Your task to perform on an android device: check out phone information Image 0: 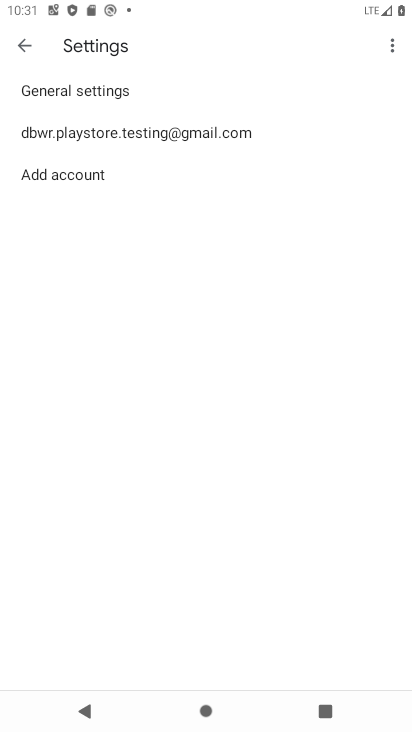
Step 0: press home button
Your task to perform on an android device: check out phone information Image 1: 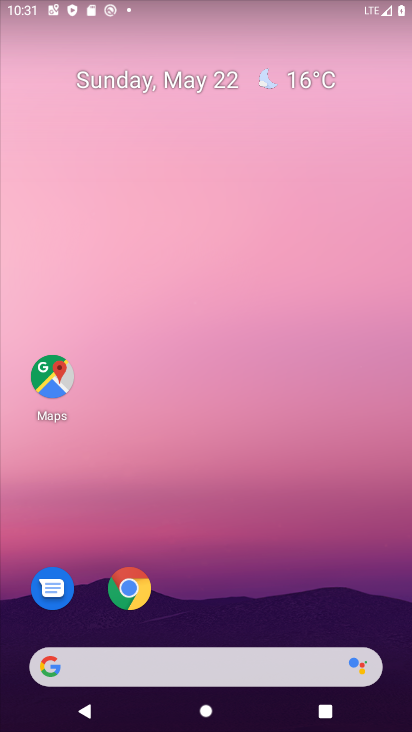
Step 1: drag from (185, 626) to (237, 228)
Your task to perform on an android device: check out phone information Image 2: 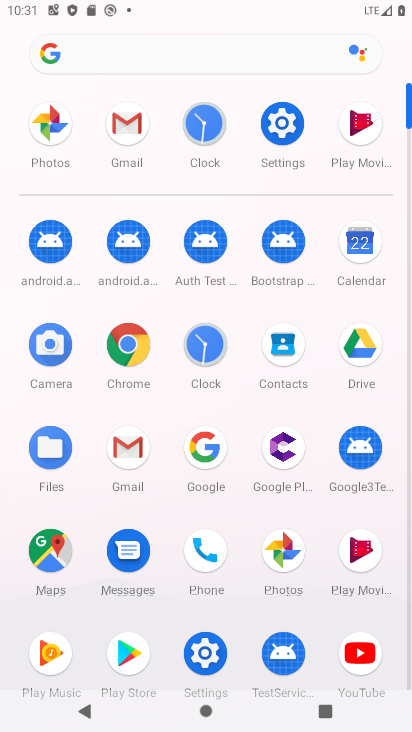
Step 2: drag from (232, 622) to (277, 451)
Your task to perform on an android device: check out phone information Image 3: 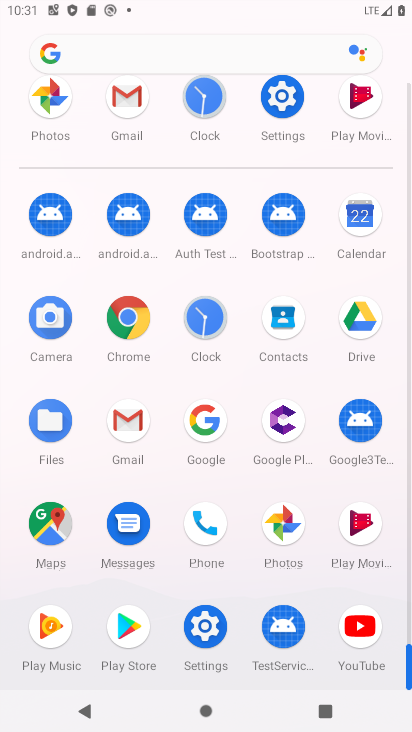
Step 3: click (216, 621)
Your task to perform on an android device: check out phone information Image 4: 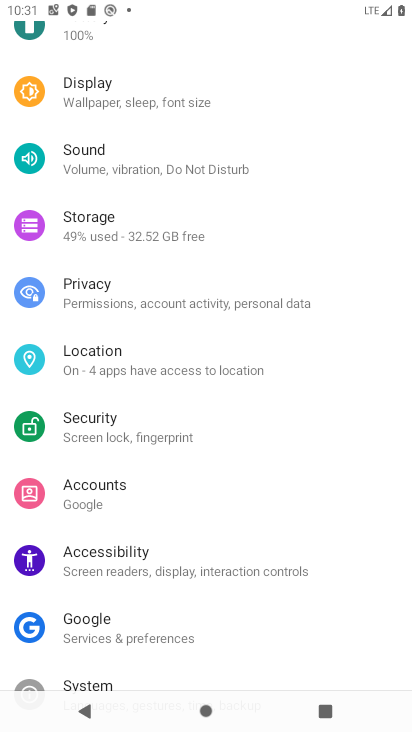
Step 4: drag from (186, 652) to (263, 197)
Your task to perform on an android device: check out phone information Image 5: 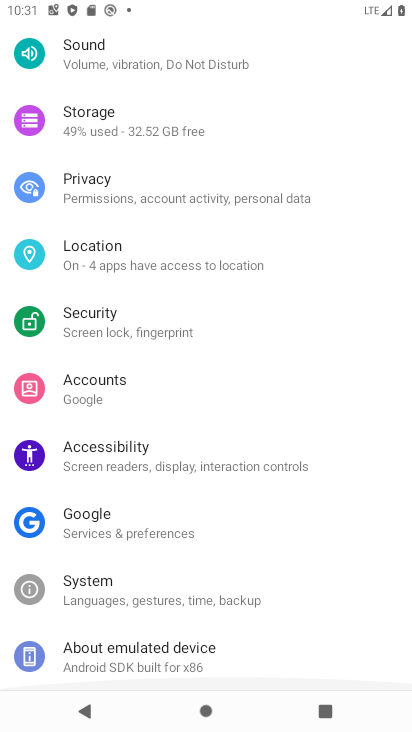
Step 5: drag from (247, 515) to (272, 215)
Your task to perform on an android device: check out phone information Image 6: 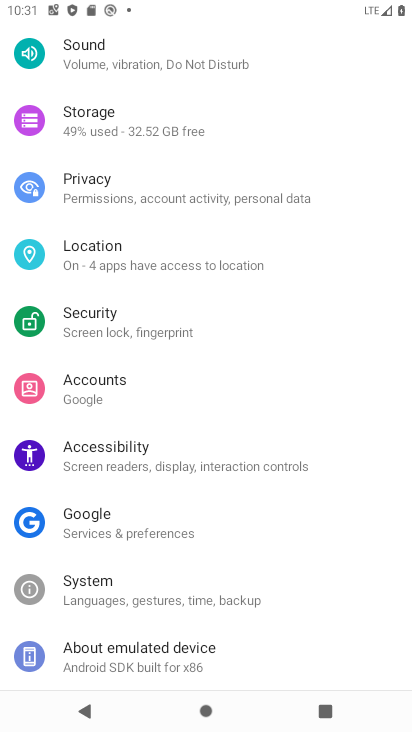
Step 6: click (179, 648)
Your task to perform on an android device: check out phone information Image 7: 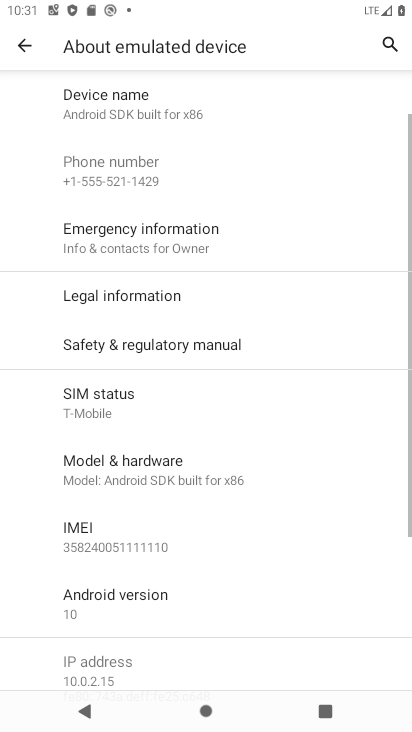
Step 7: task complete